Your task to perform on an android device: turn off notifications settings in the gmail app Image 0: 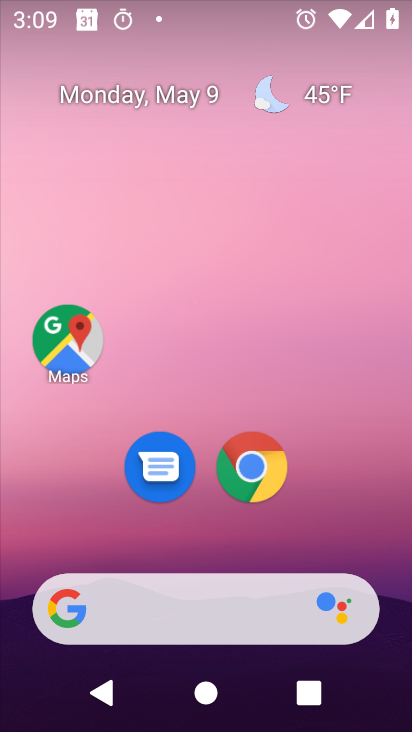
Step 0: drag from (362, 500) to (292, 69)
Your task to perform on an android device: turn off notifications settings in the gmail app Image 1: 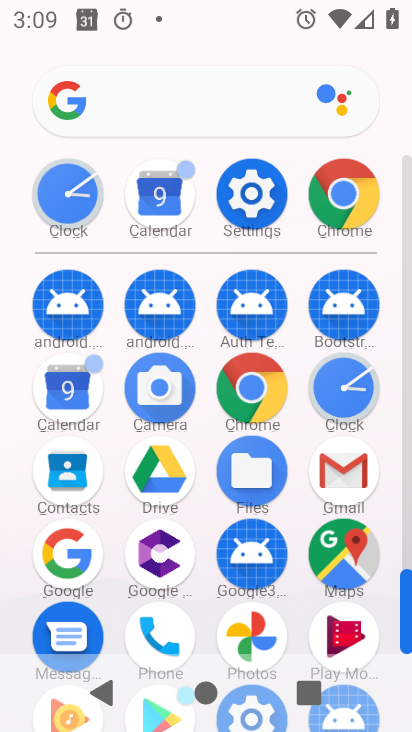
Step 1: click (344, 471)
Your task to perform on an android device: turn off notifications settings in the gmail app Image 2: 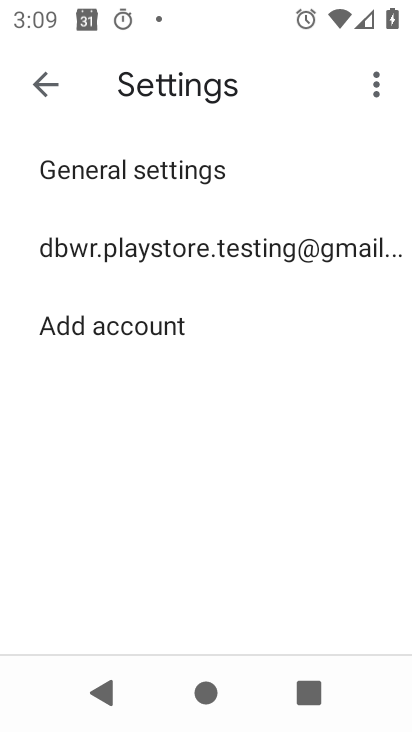
Step 2: click (151, 246)
Your task to perform on an android device: turn off notifications settings in the gmail app Image 3: 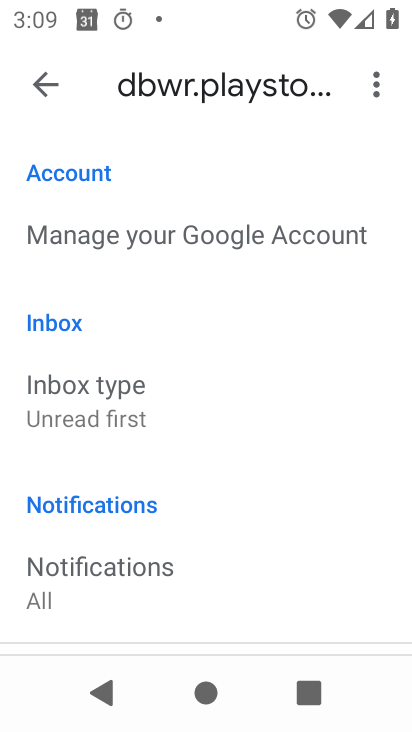
Step 3: drag from (248, 508) to (247, 141)
Your task to perform on an android device: turn off notifications settings in the gmail app Image 4: 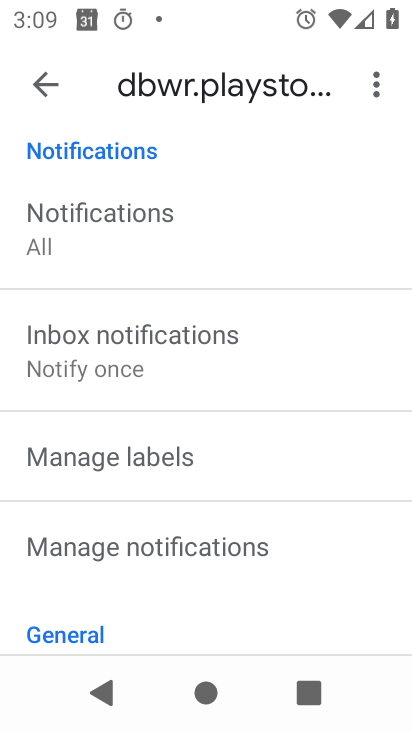
Step 4: drag from (163, 500) to (216, 267)
Your task to perform on an android device: turn off notifications settings in the gmail app Image 5: 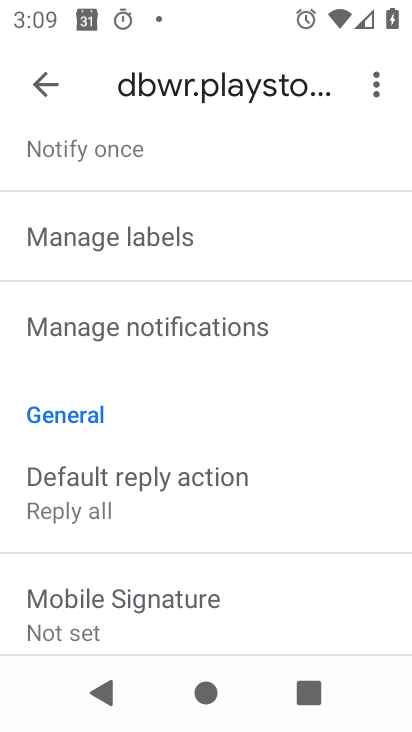
Step 5: click (179, 328)
Your task to perform on an android device: turn off notifications settings in the gmail app Image 6: 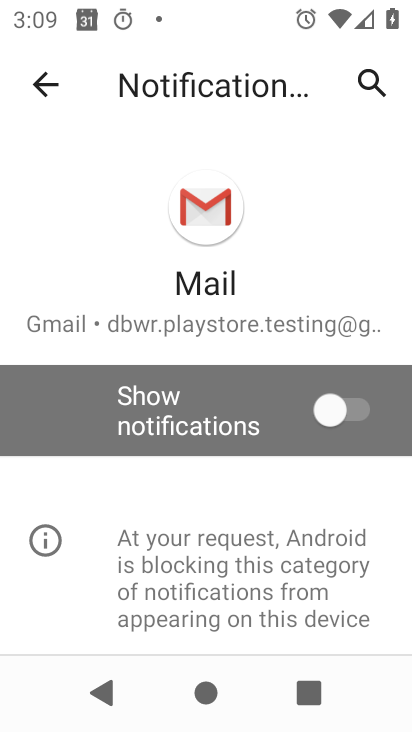
Step 6: task complete